Your task to perform on an android device: open a new tab in the chrome app Image 0: 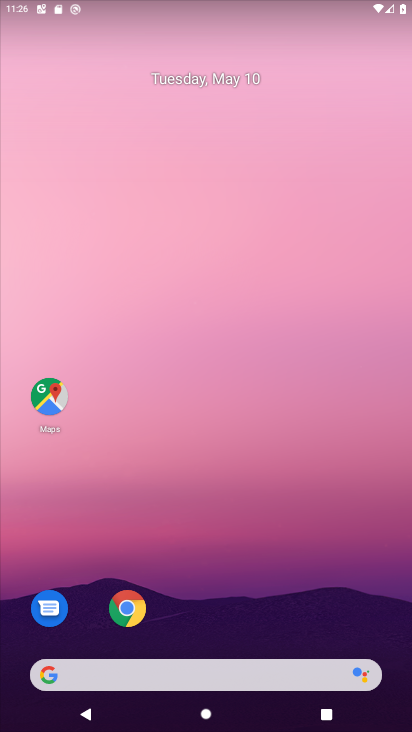
Step 0: click (118, 617)
Your task to perform on an android device: open a new tab in the chrome app Image 1: 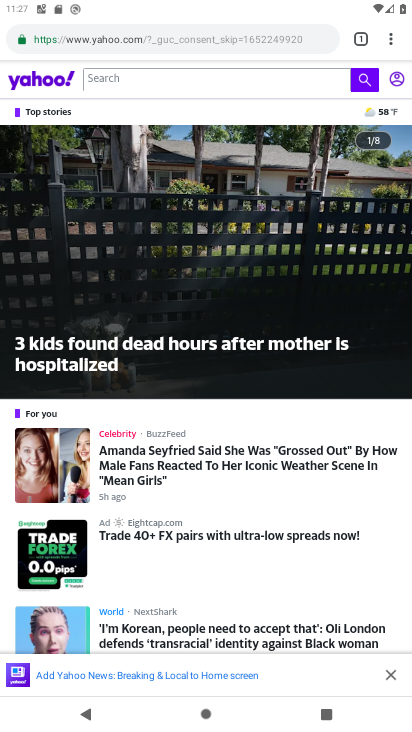
Step 1: click (390, 39)
Your task to perform on an android device: open a new tab in the chrome app Image 2: 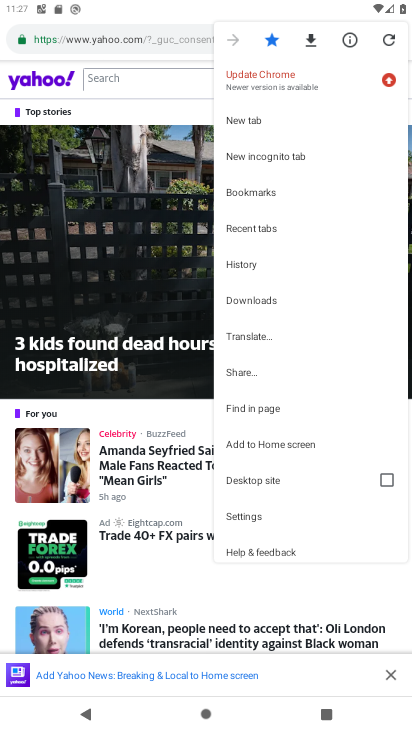
Step 2: click (252, 129)
Your task to perform on an android device: open a new tab in the chrome app Image 3: 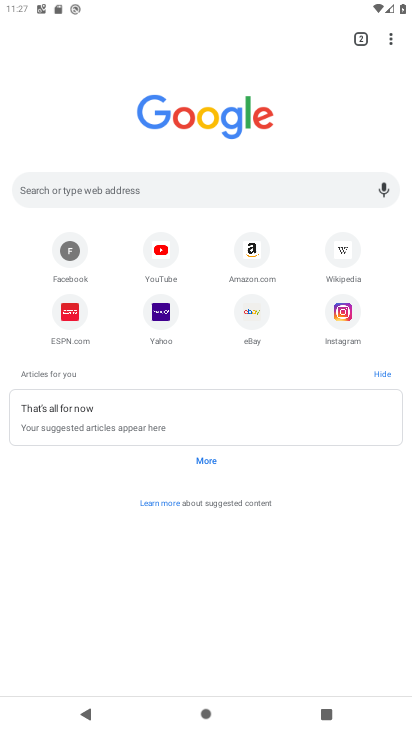
Step 3: task complete